Your task to perform on an android device: empty trash in the gmail app Image 0: 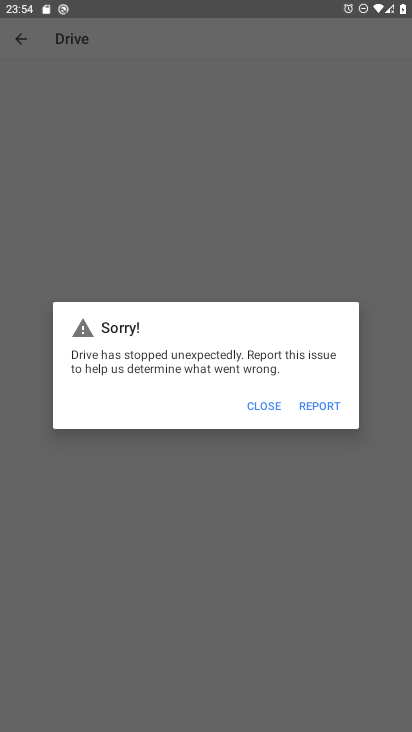
Step 0: press home button
Your task to perform on an android device: empty trash in the gmail app Image 1: 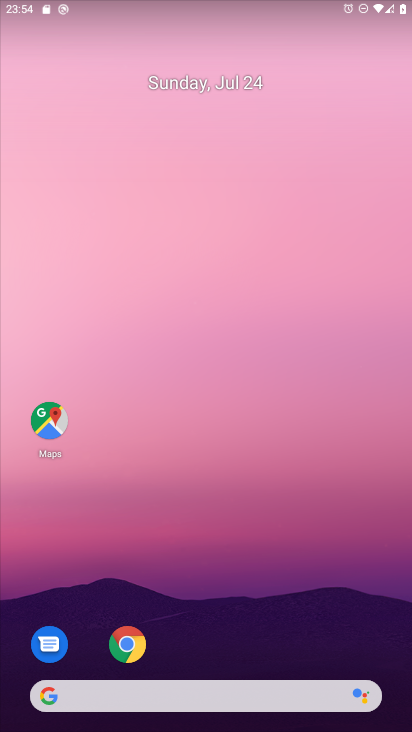
Step 1: drag from (388, 644) to (329, 63)
Your task to perform on an android device: empty trash in the gmail app Image 2: 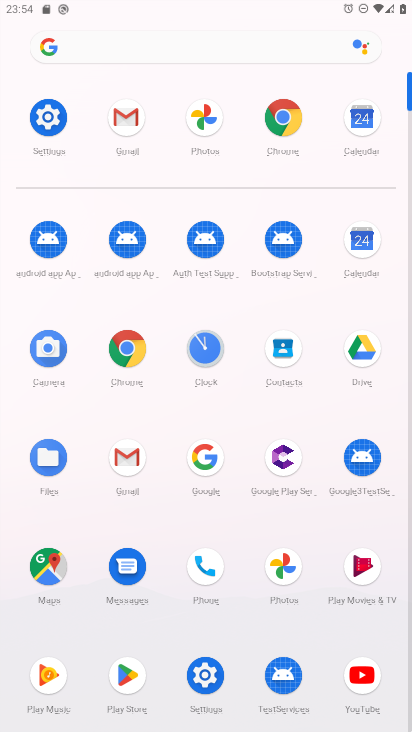
Step 2: click (126, 456)
Your task to perform on an android device: empty trash in the gmail app Image 3: 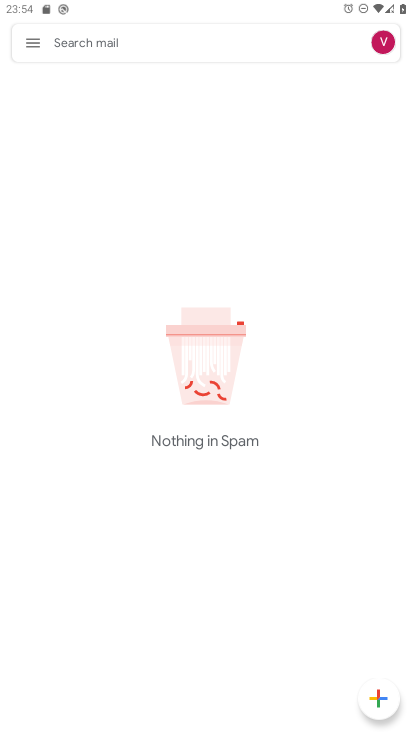
Step 3: click (28, 44)
Your task to perform on an android device: empty trash in the gmail app Image 4: 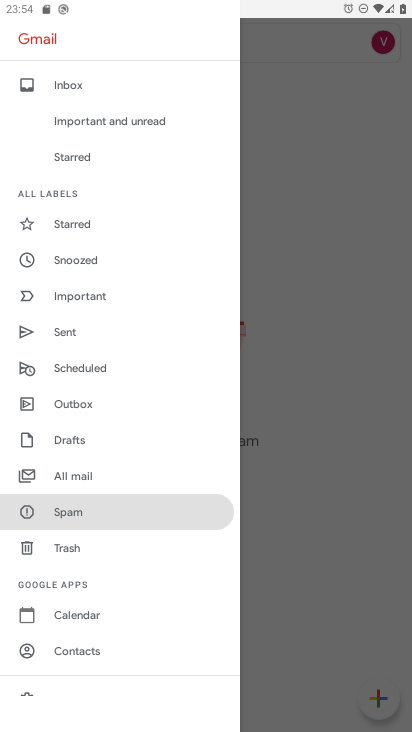
Step 4: click (77, 543)
Your task to perform on an android device: empty trash in the gmail app Image 5: 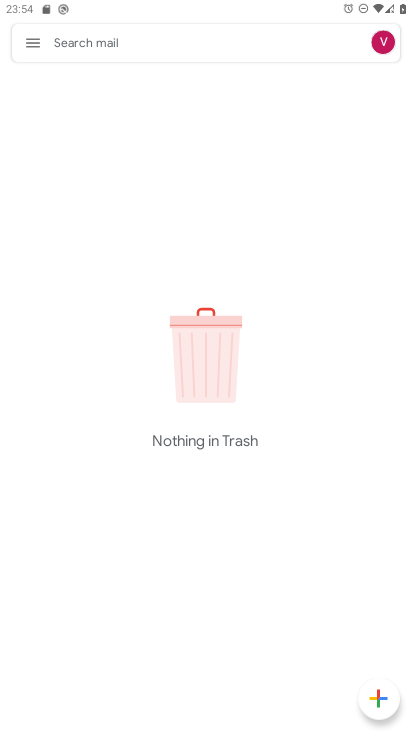
Step 5: task complete